Your task to perform on an android device: turn off improve location accuracy Image 0: 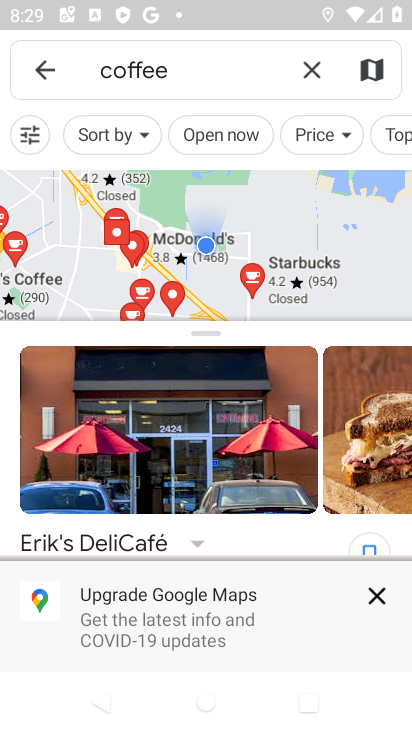
Step 0: press home button
Your task to perform on an android device: turn off improve location accuracy Image 1: 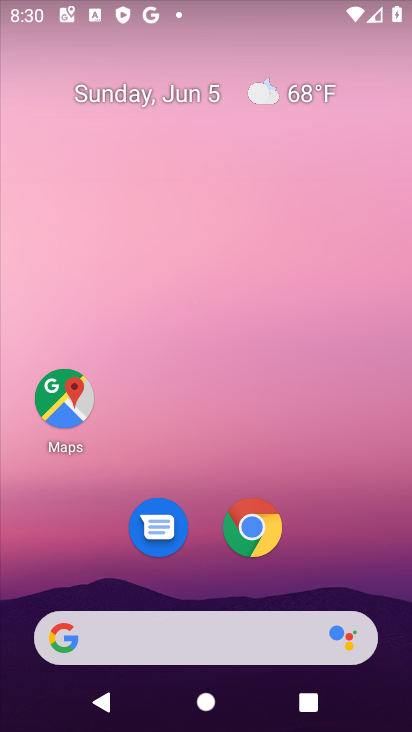
Step 1: drag from (207, 568) to (200, 1)
Your task to perform on an android device: turn off improve location accuracy Image 2: 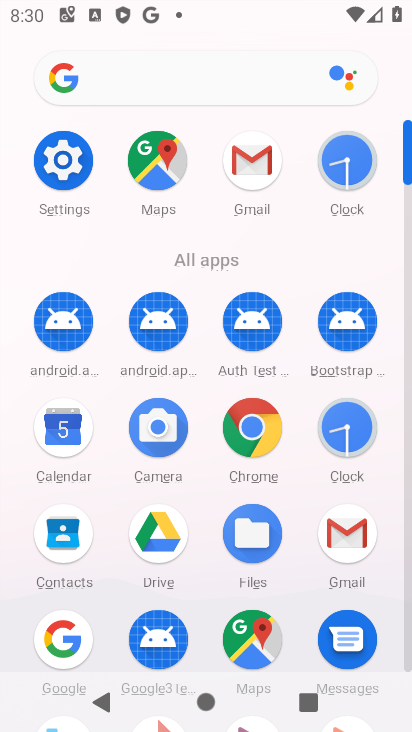
Step 2: drag from (196, 625) to (218, 190)
Your task to perform on an android device: turn off improve location accuracy Image 3: 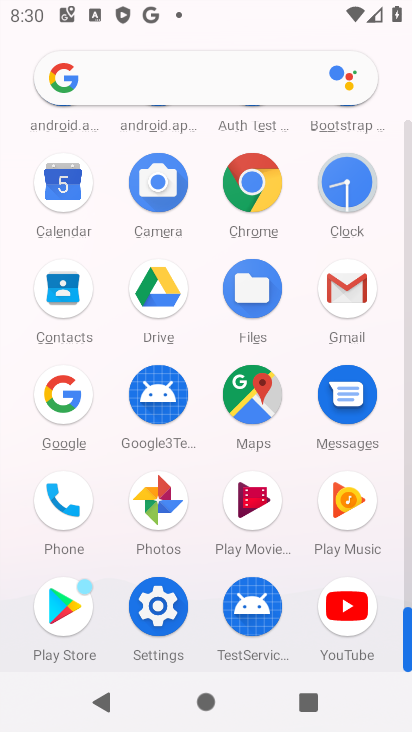
Step 3: click (152, 604)
Your task to perform on an android device: turn off improve location accuracy Image 4: 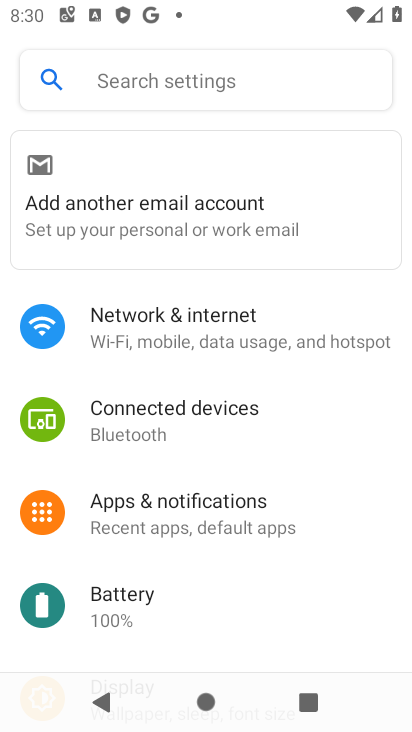
Step 4: drag from (152, 604) to (179, 123)
Your task to perform on an android device: turn off improve location accuracy Image 5: 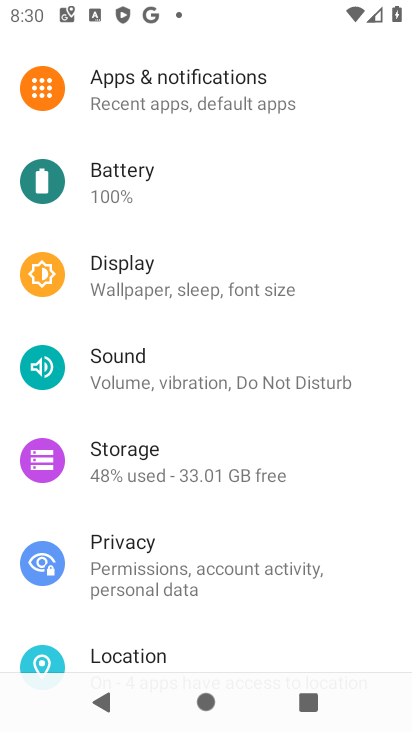
Step 5: click (142, 643)
Your task to perform on an android device: turn off improve location accuracy Image 6: 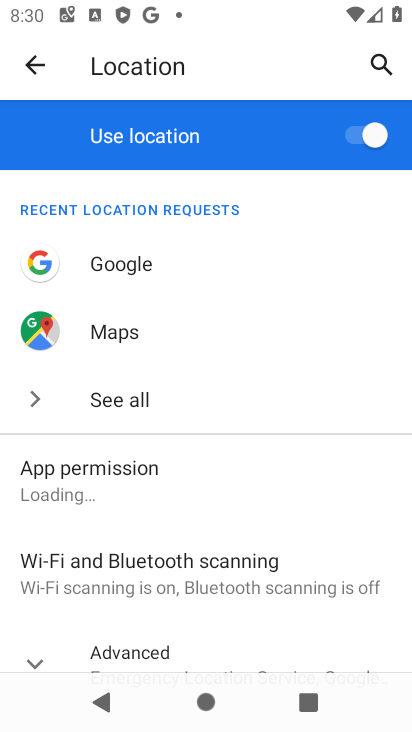
Step 6: drag from (142, 643) to (180, 202)
Your task to perform on an android device: turn off improve location accuracy Image 7: 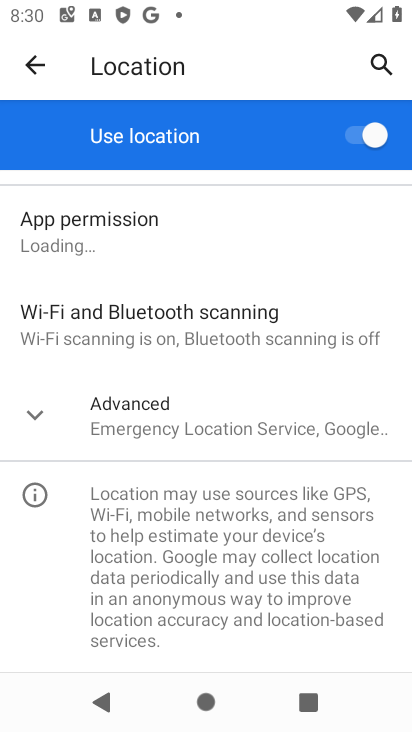
Step 7: click (208, 557)
Your task to perform on an android device: turn off improve location accuracy Image 8: 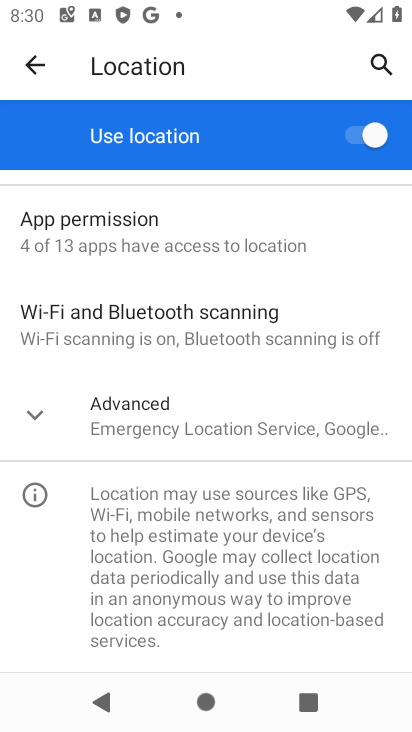
Step 8: click (186, 416)
Your task to perform on an android device: turn off improve location accuracy Image 9: 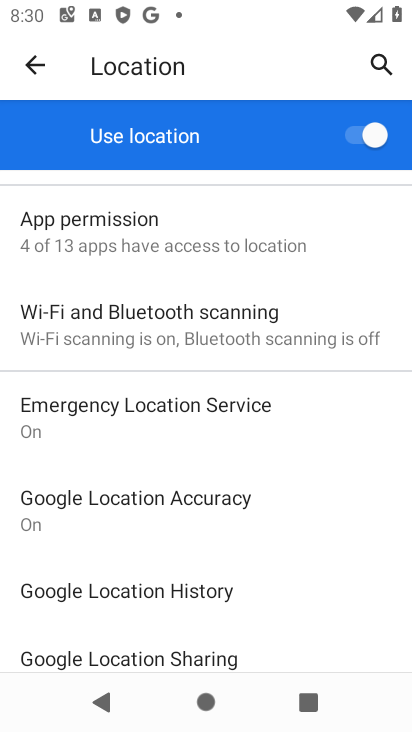
Step 9: click (173, 497)
Your task to perform on an android device: turn off improve location accuracy Image 10: 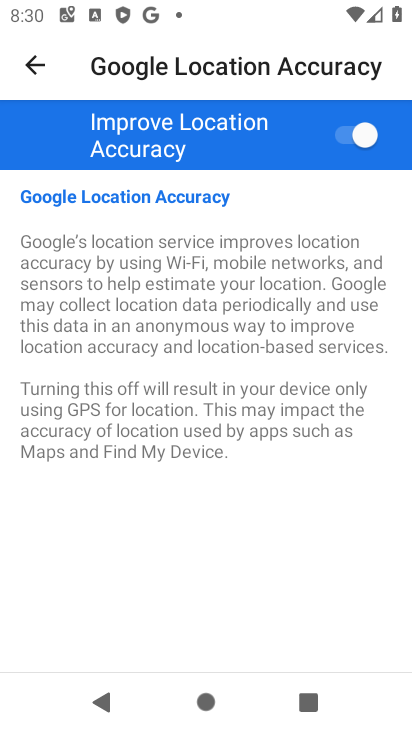
Step 10: click (345, 143)
Your task to perform on an android device: turn off improve location accuracy Image 11: 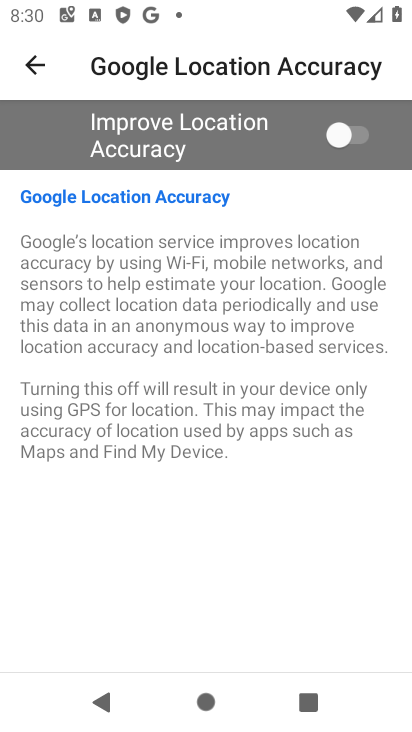
Step 11: task complete